Your task to perform on an android device: empty trash in google photos Image 0: 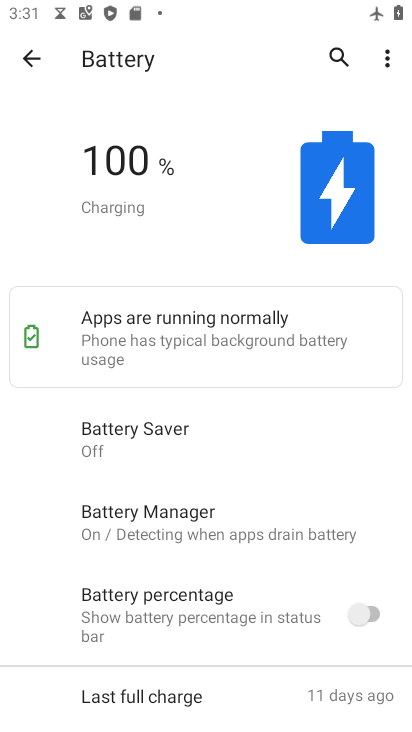
Step 0: press home button
Your task to perform on an android device: empty trash in google photos Image 1: 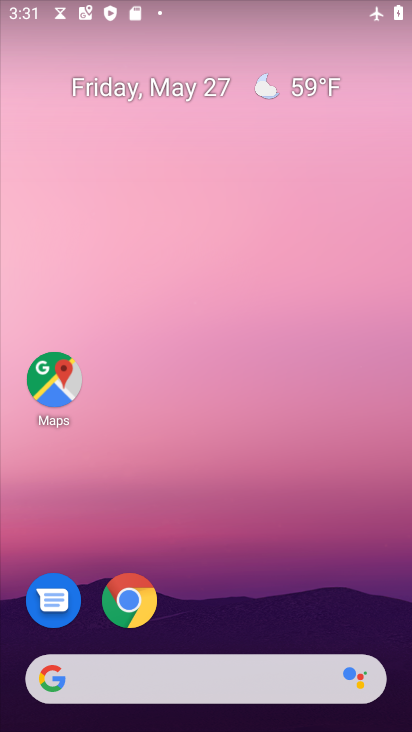
Step 1: drag from (249, 588) to (231, 39)
Your task to perform on an android device: empty trash in google photos Image 2: 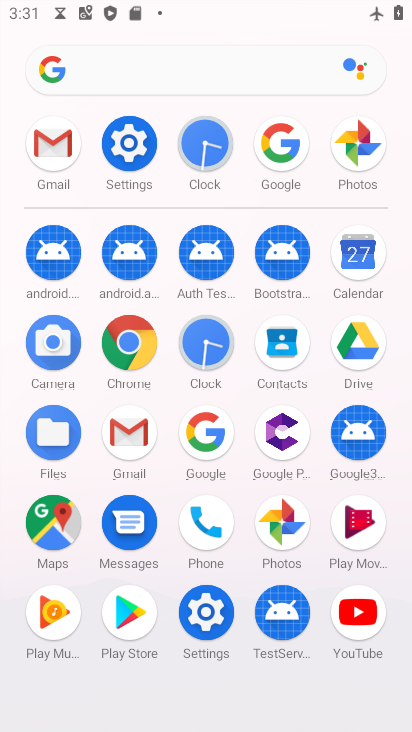
Step 2: click (359, 139)
Your task to perform on an android device: empty trash in google photos Image 3: 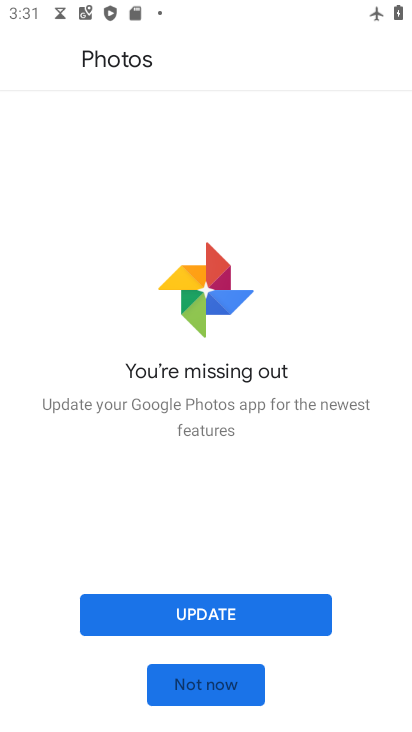
Step 3: click (196, 611)
Your task to perform on an android device: empty trash in google photos Image 4: 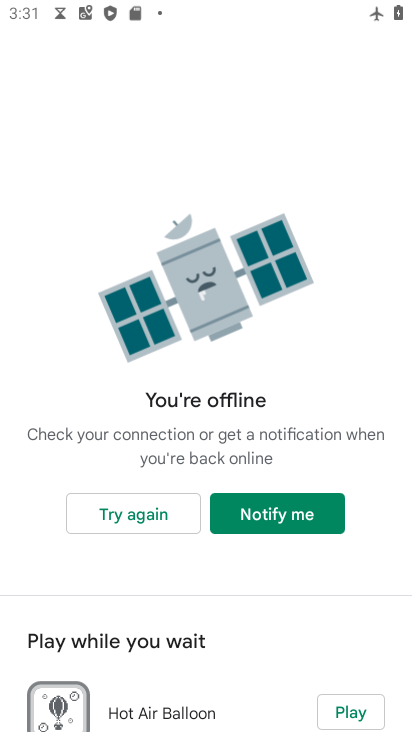
Step 4: task complete